Your task to perform on an android device: toggle improve location accuracy Image 0: 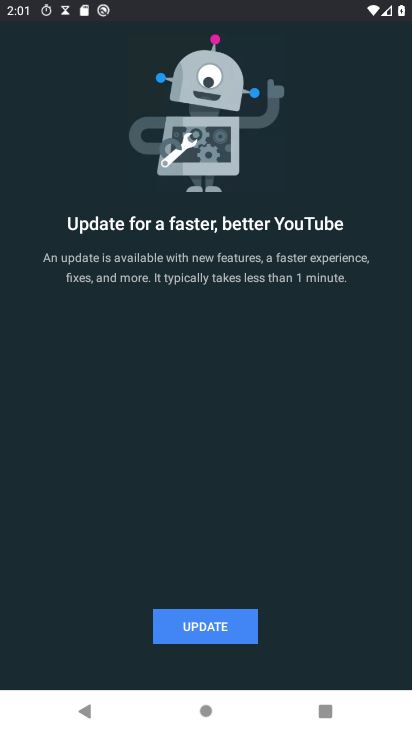
Step 0: press home button
Your task to perform on an android device: toggle improve location accuracy Image 1: 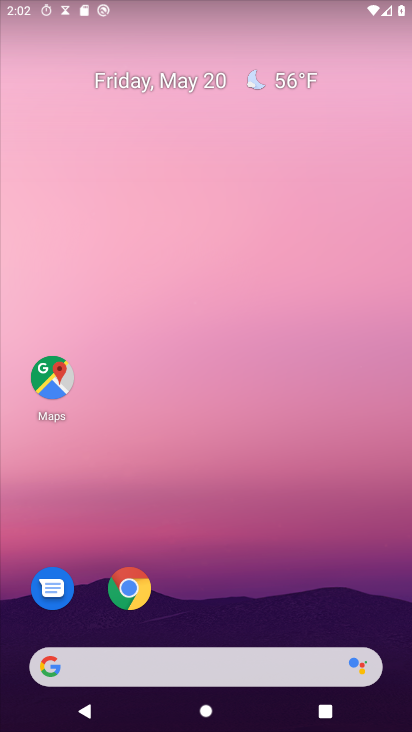
Step 1: drag from (19, 620) to (221, 147)
Your task to perform on an android device: toggle improve location accuracy Image 2: 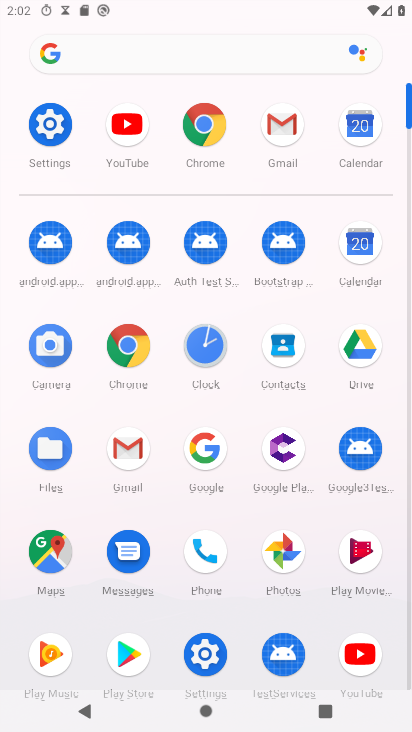
Step 2: click (39, 125)
Your task to perform on an android device: toggle improve location accuracy Image 3: 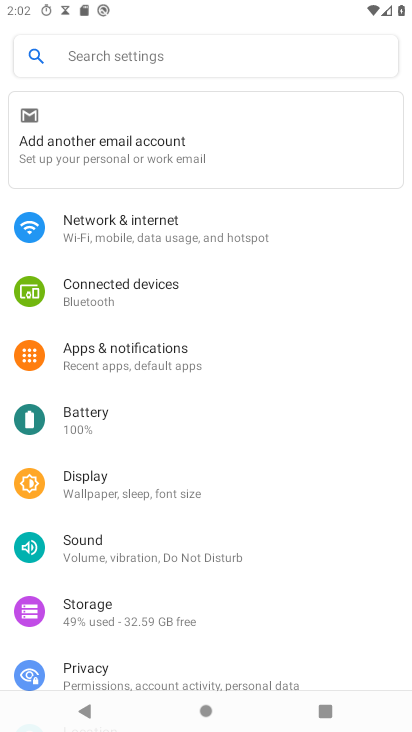
Step 3: drag from (78, 638) to (238, 215)
Your task to perform on an android device: toggle improve location accuracy Image 4: 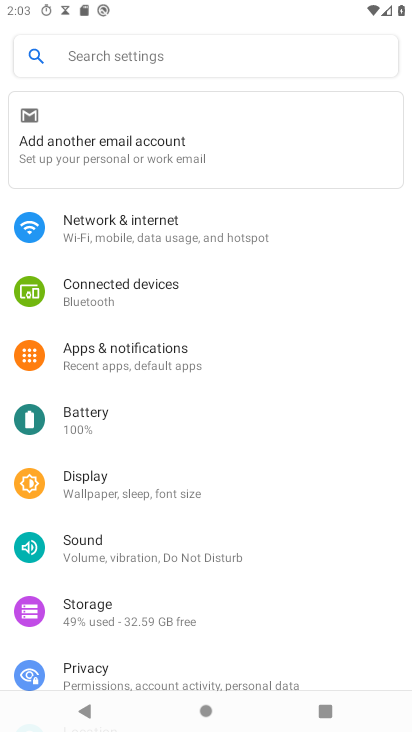
Step 4: drag from (2, 640) to (134, 235)
Your task to perform on an android device: toggle improve location accuracy Image 5: 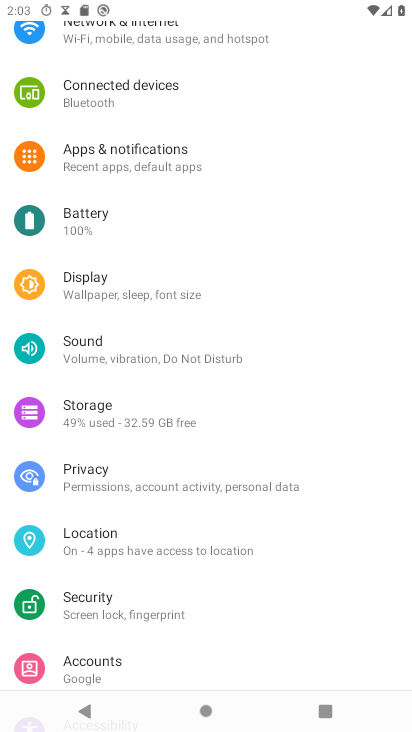
Step 5: click (97, 539)
Your task to perform on an android device: toggle improve location accuracy Image 6: 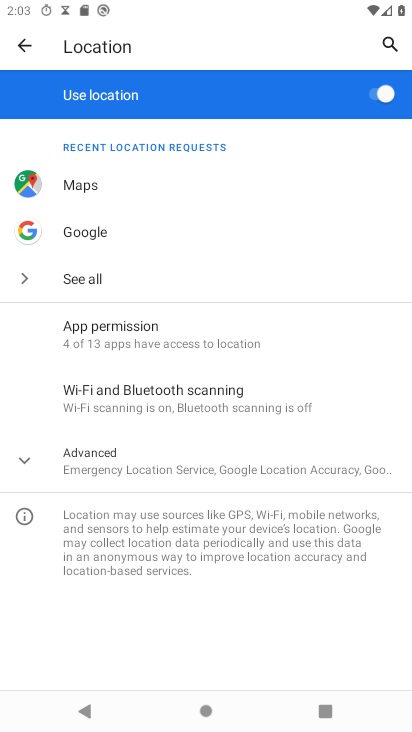
Step 6: click (195, 472)
Your task to perform on an android device: toggle improve location accuracy Image 7: 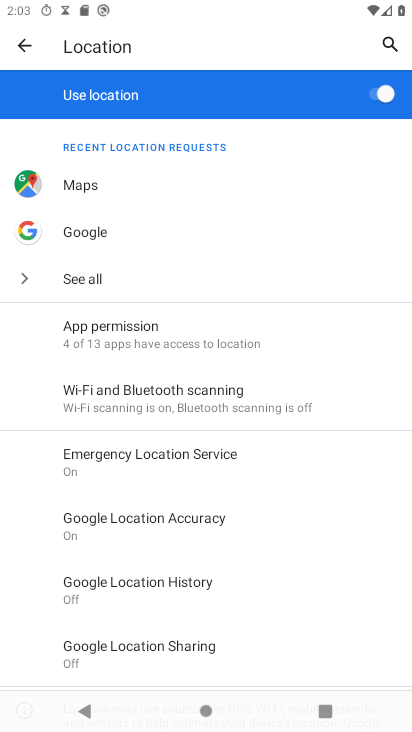
Step 7: click (217, 523)
Your task to perform on an android device: toggle improve location accuracy Image 8: 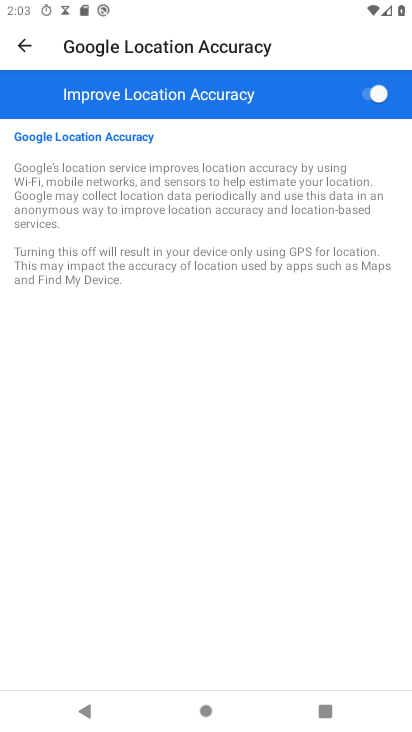
Step 8: click (385, 95)
Your task to perform on an android device: toggle improve location accuracy Image 9: 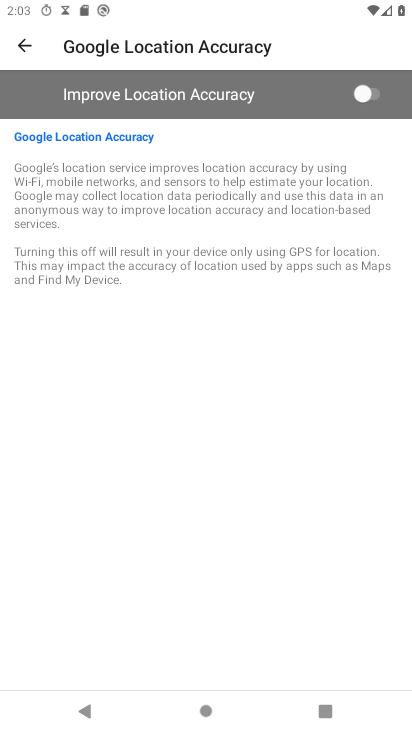
Step 9: task complete